Your task to perform on an android device: Open Chrome and go to settings Image 0: 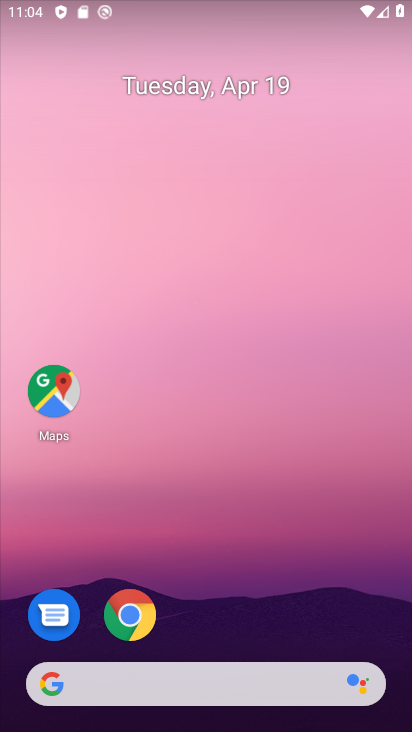
Step 0: click (130, 599)
Your task to perform on an android device: Open Chrome and go to settings Image 1: 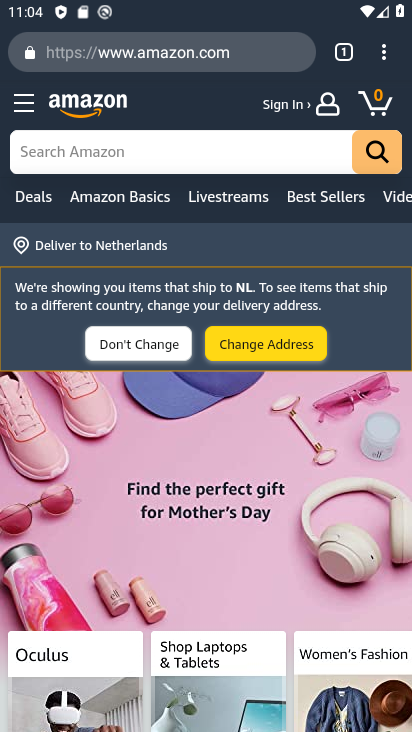
Step 1: task complete